Your task to perform on an android device: find snoozed emails in the gmail app Image 0: 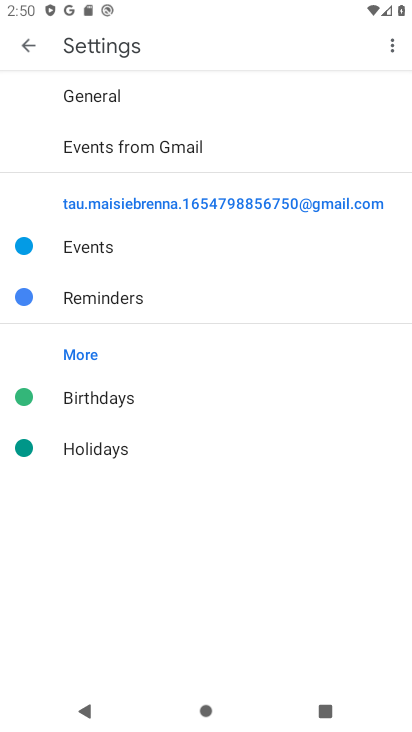
Step 0: press home button
Your task to perform on an android device: find snoozed emails in the gmail app Image 1: 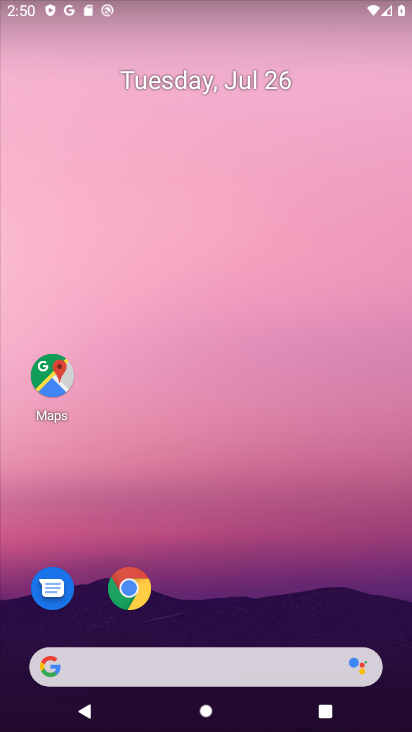
Step 1: drag from (229, 602) to (212, 295)
Your task to perform on an android device: find snoozed emails in the gmail app Image 2: 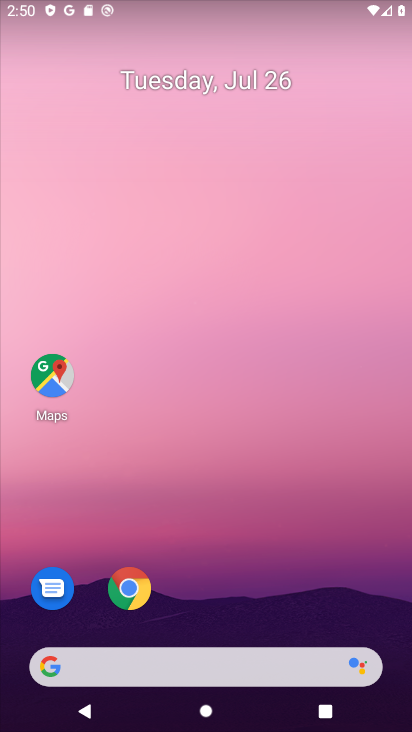
Step 2: drag from (240, 623) to (177, 32)
Your task to perform on an android device: find snoozed emails in the gmail app Image 3: 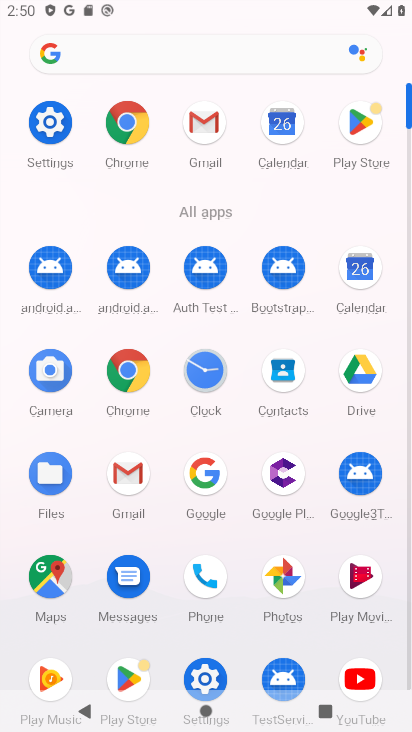
Step 3: click (212, 133)
Your task to perform on an android device: find snoozed emails in the gmail app Image 4: 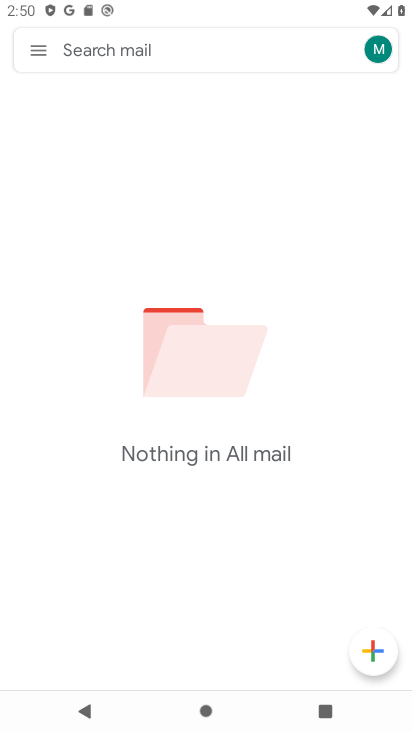
Step 4: click (41, 48)
Your task to perform on an android device: find snoozed emails in the gmail app Image 5: 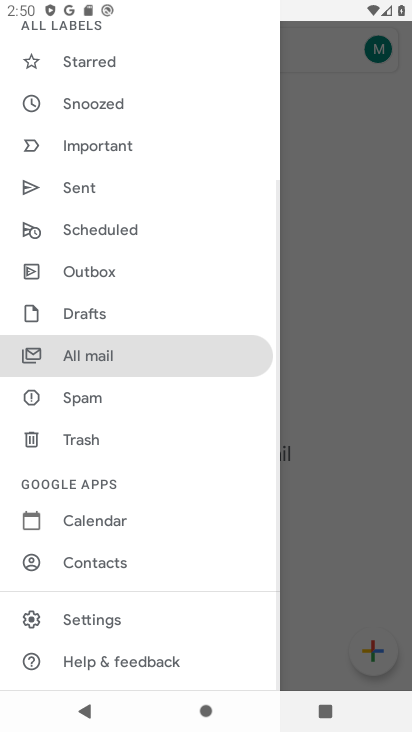
Step 5: click (77, 101)
Your task to perform on an android device: find snoozed emails in the gmail app Image 6: 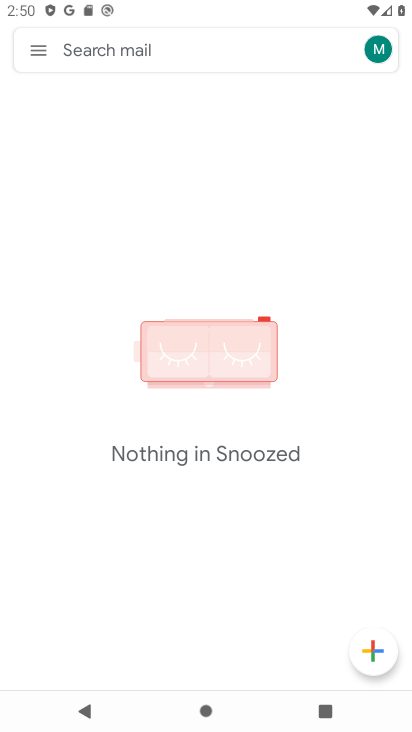
Step 6: task complete